Your task to perform on an android device: find which apps use the phone's location Image 0: 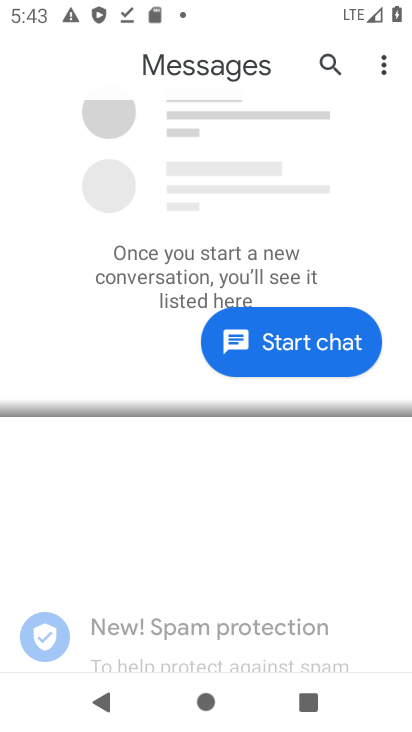
Step 0: drag from (198, 638) to (294, 31)
Your task to perform on an android device: find which apps use the phone's location Image 1: 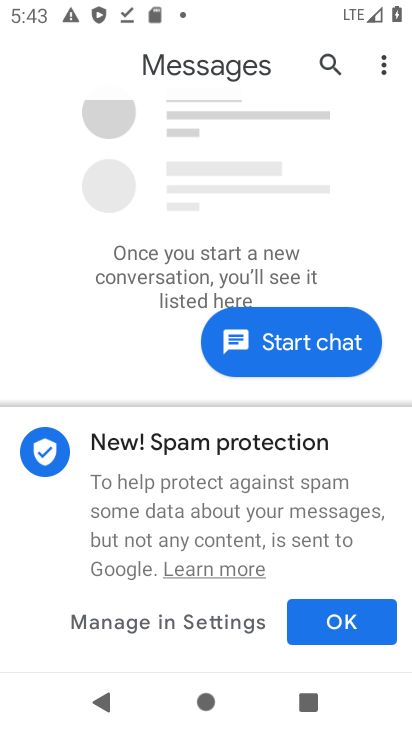
Step 1: drag from (236, 573) to (251, 205)
Your task to perform on an android device: find which apps use the phone's location Image 2: 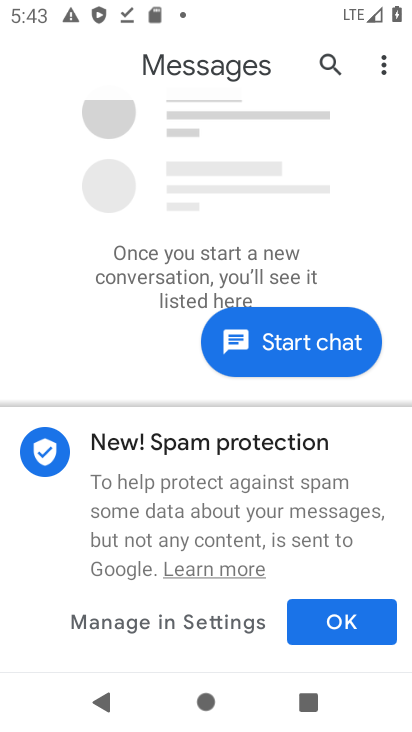
Step 2: drag from (152, 560) to (162, 332)
Your task to perform on an android device: find which apps use the phone's location Image 3: 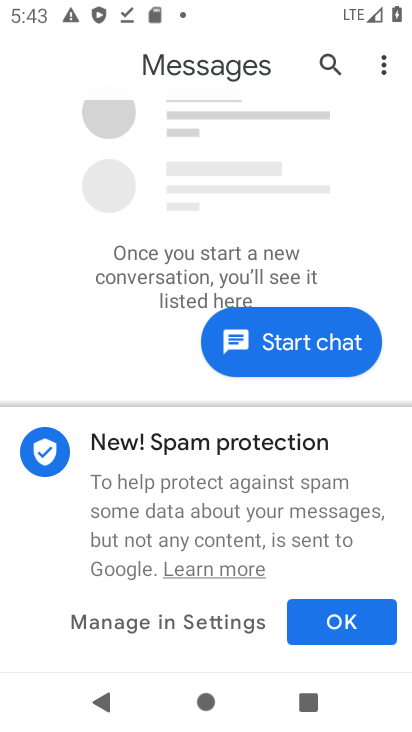
Step 3: drag from (224, 536) to (247, 264)
Your task to perform on an android device: find which apps use the phone's location Image 4: 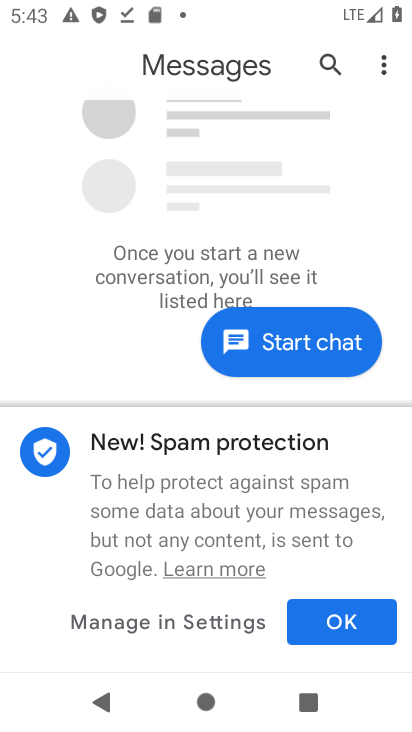
Step 4: drag from (229, 513) to (220, 251)
Your task to perform on an android device: find which apps use the phone's location Image 5: 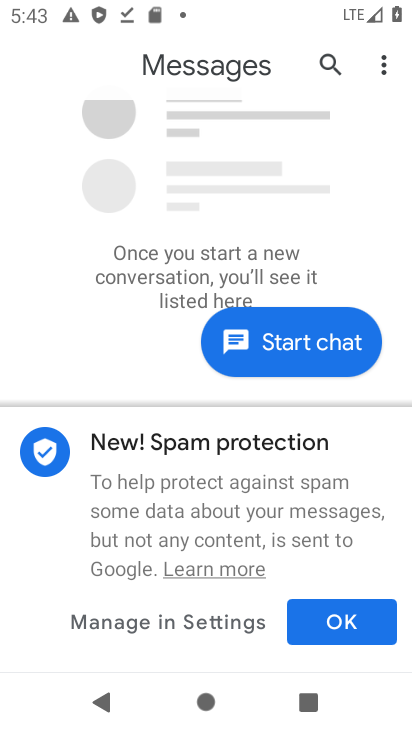
Step 5: drag from (242, 478) to (231, 198)
Your task to perform on an android device: find which apps use the phone's location Image 6: 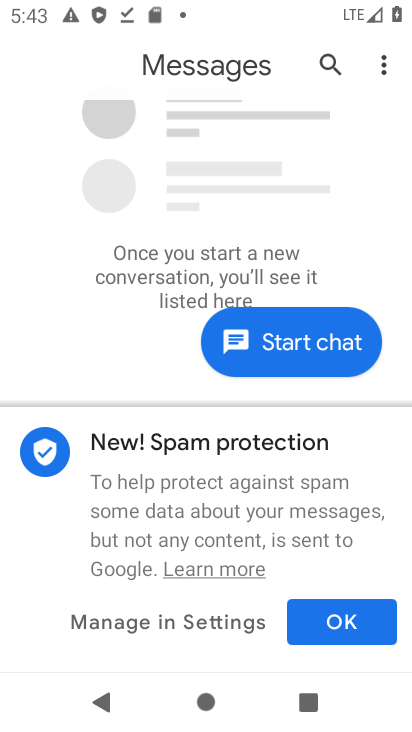
Step 6: press home button
Your task to perform on an android device: find which apps use the phone's location Image 7: 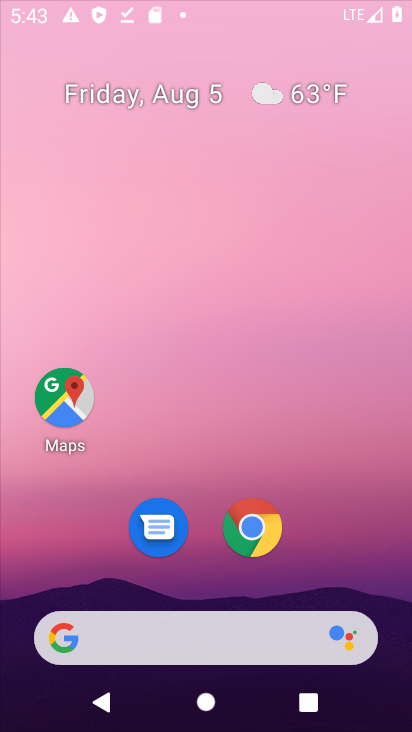
Step 7: drag from (238, 529) to (232, 32)
Your task to perform on an android device: find which apps use the phone's location Image 8: 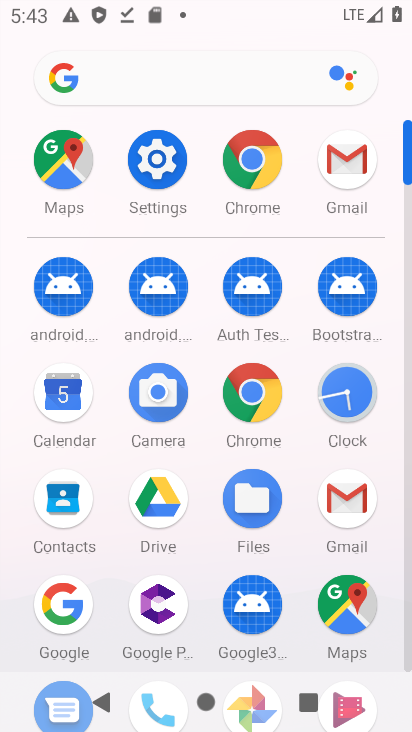
Step 8: click (140, 160)
Your task to perform on an android device: find which apps use the phone's location Image 9: 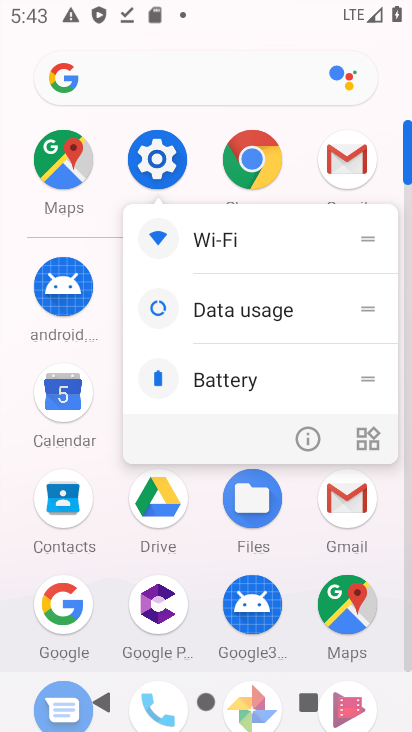
Step 9: click (288, 439)
Your task to perform on an android device: find which apps use the phone's location Image 10: 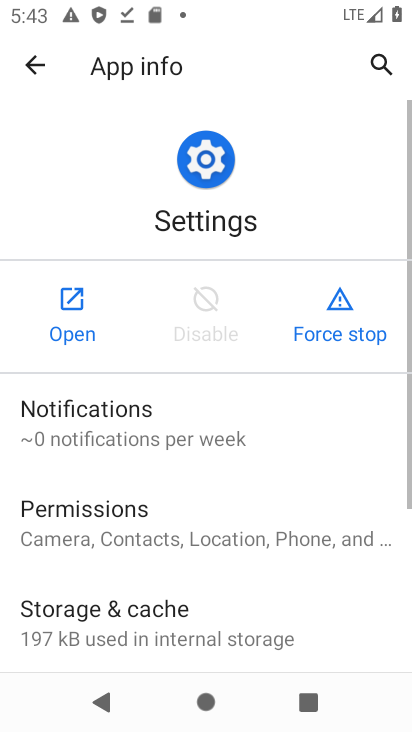
Step 10: click (76, 296)
Your task to perform on an android device: find which apps use the phone's location Image 11: 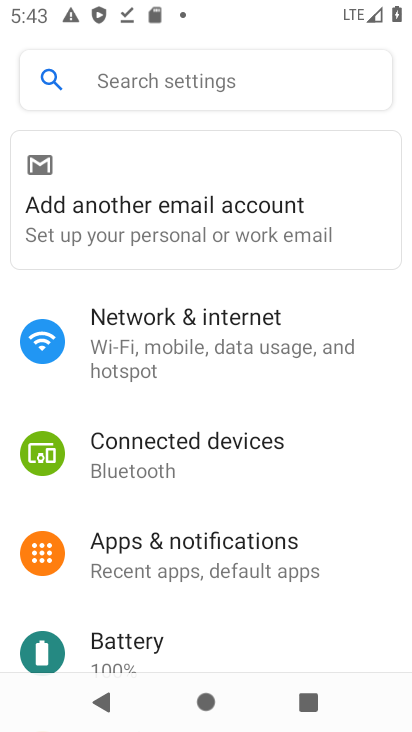
Step 11: drag from (185, 558) to (221, 144)
Your task to perform on an android device: find which apps use the phone's location Image 12: 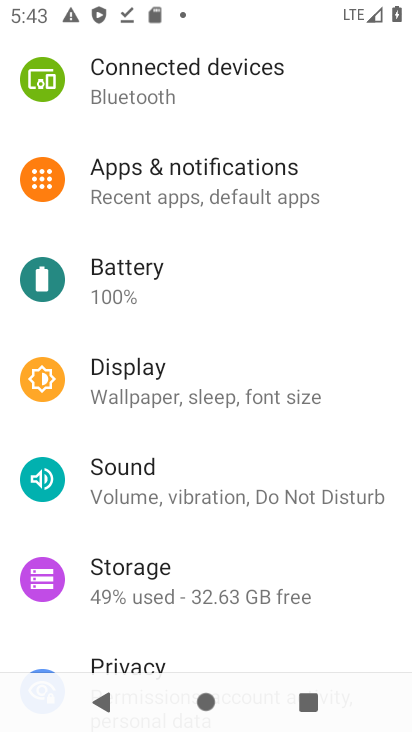
Step 12: drag from (171, 544) to (195, 164)
Your task to perform on an android device: find which apps use the phone's location Image 13: 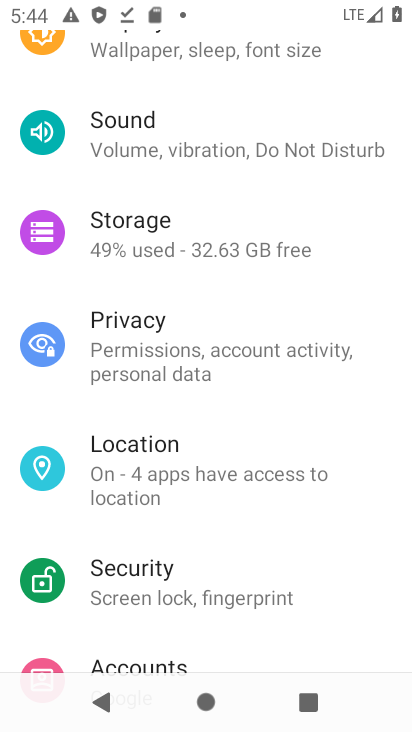
Step 13: click (134, 463)
Your task to perform on an android device: find which apps use the phone's location Image 14: 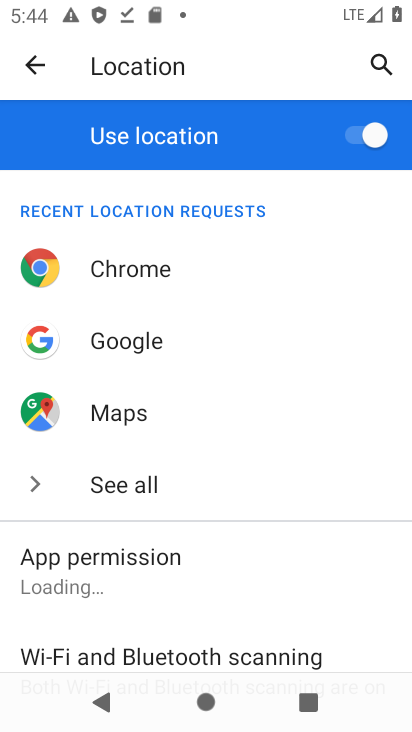
Step 14: drag from (123, 558) to (221, 232)
Your task to perform on an android device: find which apps use the phone's location Image 15: 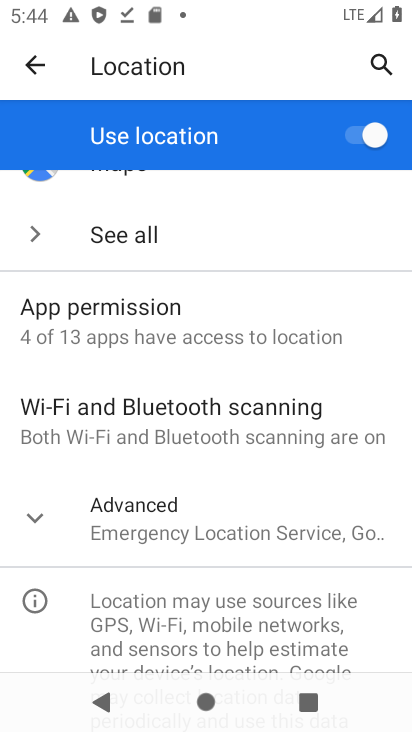
Step 15: click (97, 335)
Your task to perform on an android device: find which apps use the phone's location Image 16: 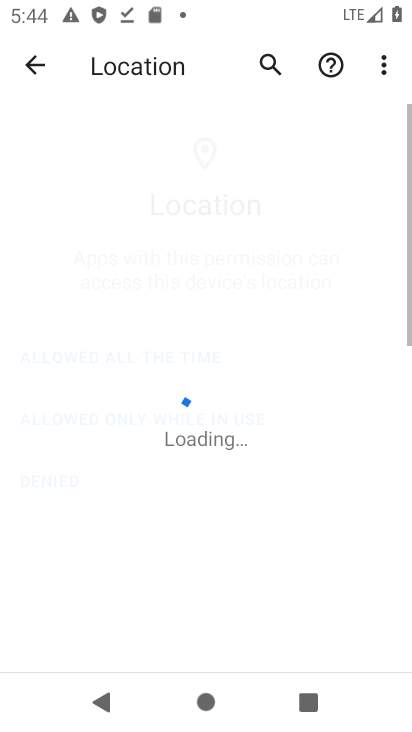
Step 16: task complete